Your task to perform on an android device: Go to accessibility settings Image 0: 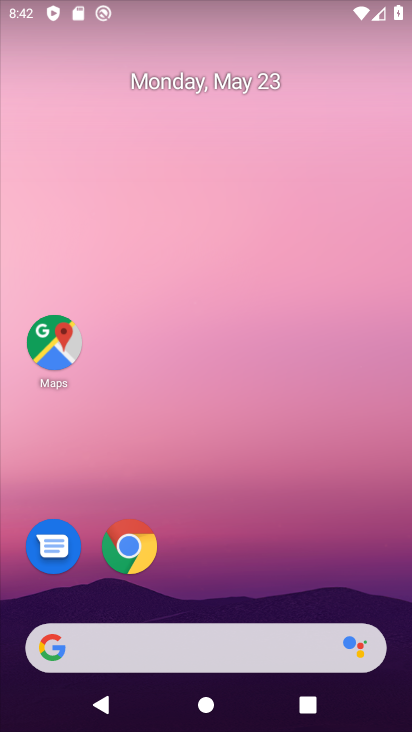
Step 0: drag from (364, 502) to (320, 115)
Your task to perform on an android device: Go to accessibility settings Image 1: 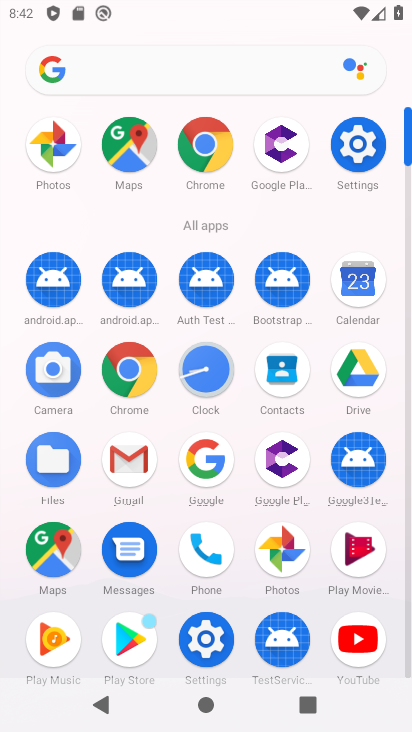
Step 1: click (352, 142)
Your task to perform on an android device: Go to accessibility settings Image 2: 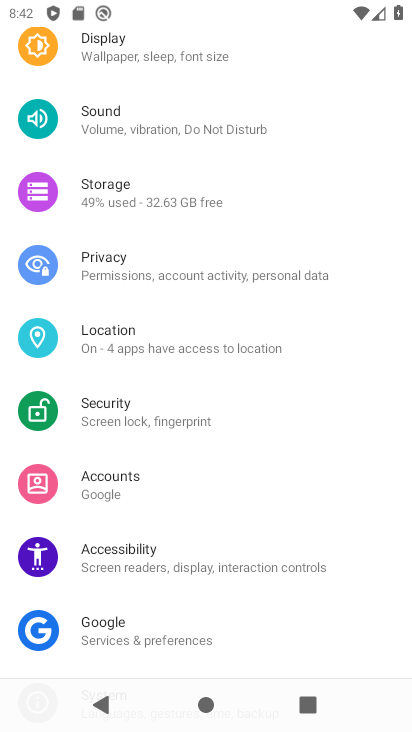
Step 2: click (228, 552)
Your task to perform on an android device: Go to accessibility settings Image 3: 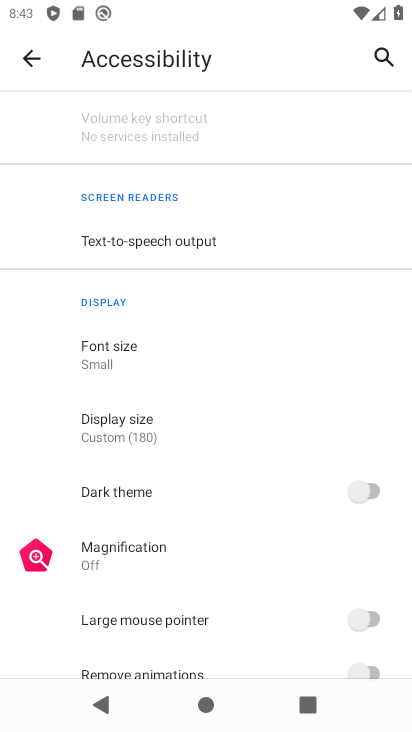
Step 3: task complete